Your task to perform on an android device: toggle notifications settings in the gmail app Image 0: 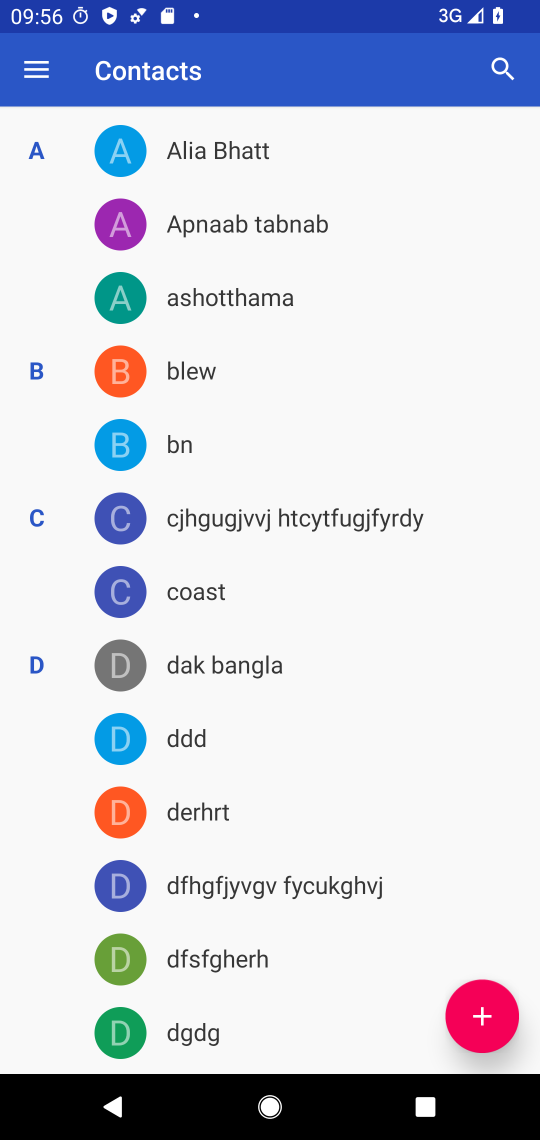
Step 0: press home button
Your task to perform on an android device: toggle notifications settings in the gmail app Image 1: 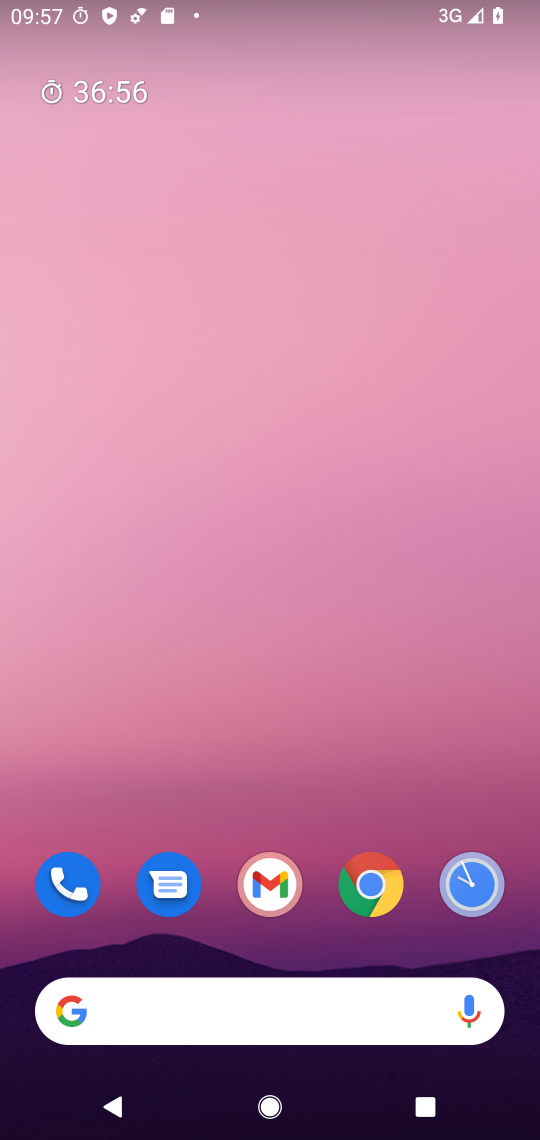
Step 1: click (278, 869)
Your task to perform on an android device: toggle notifications settings in the gmail app Image 2: 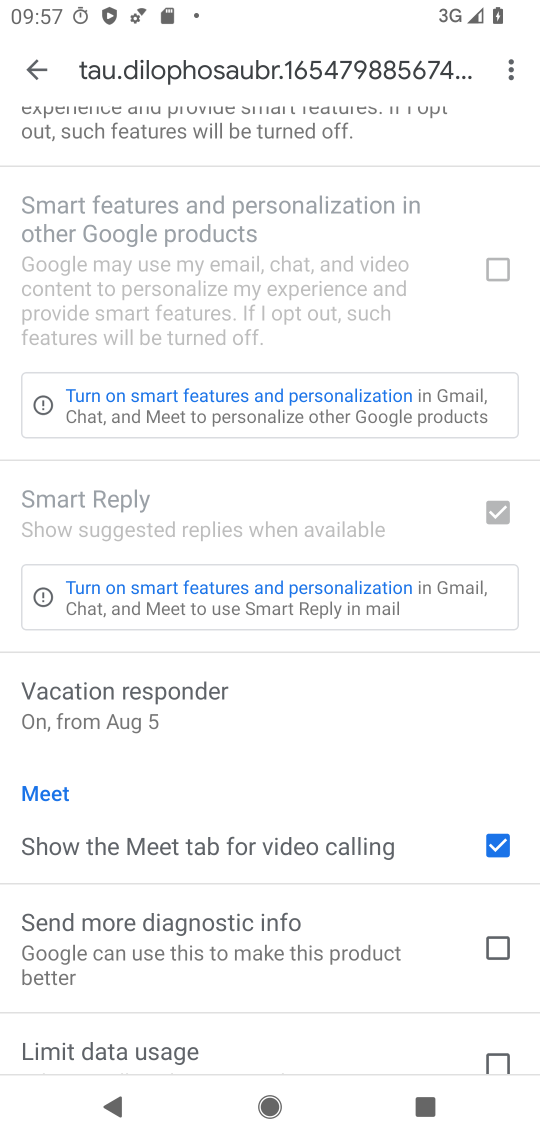
Step 2: drag from (140, 224) to (210, 625)
Your task to perform on an android device: toggle notifications settings in the gmail app Image 3: 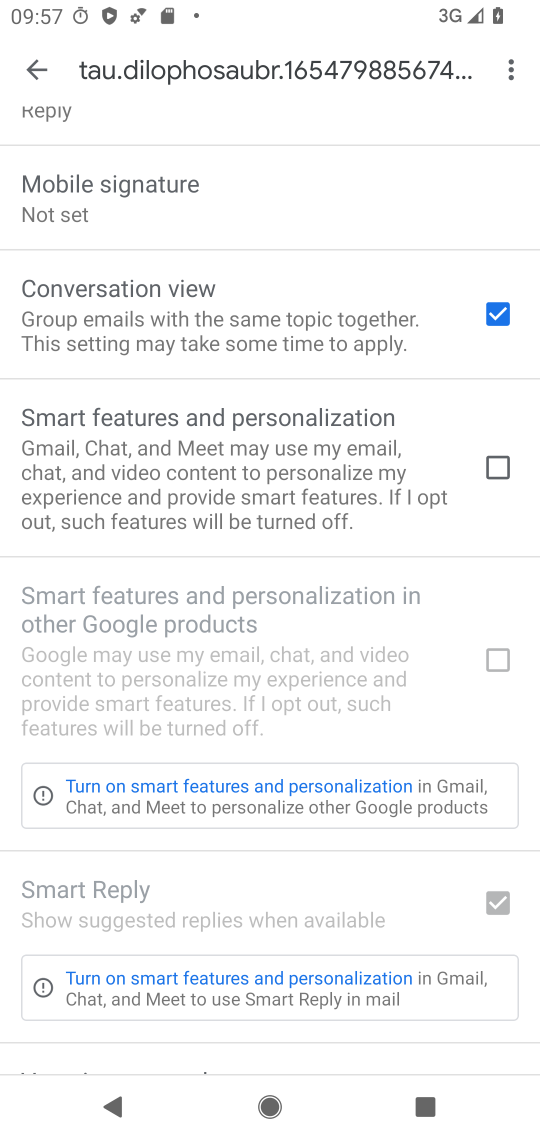
Step 3: drag from (239, 236) to (263, 806)
Your task to perform on an android device: toggle notifications settings in the gmail app Image 4: 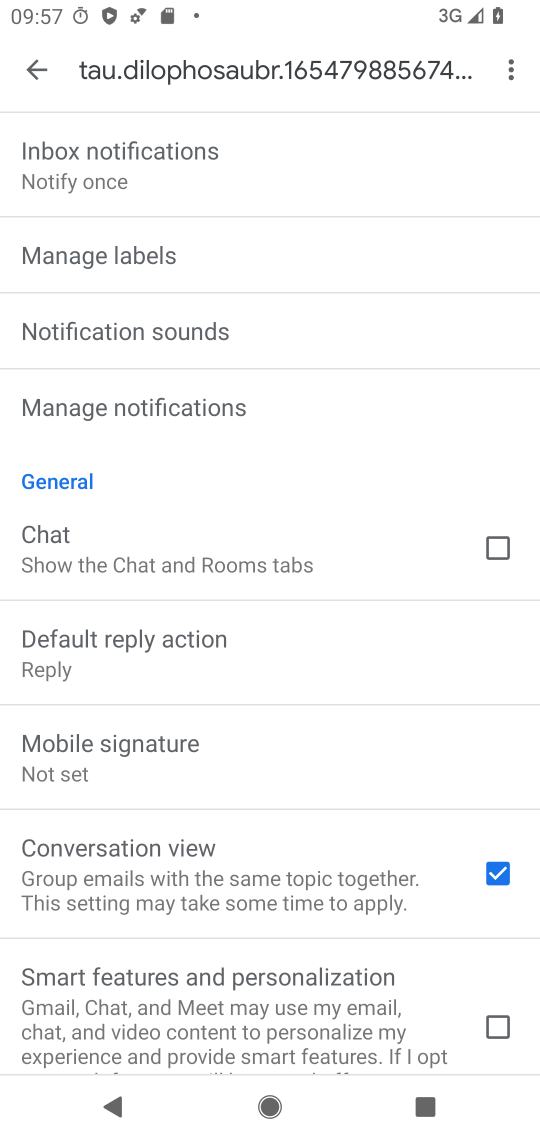
Step 4: drag from (247, 420) to (247, 879)
Your task to perform on an android device: toggle notifications settings in the gmail app Image 5: 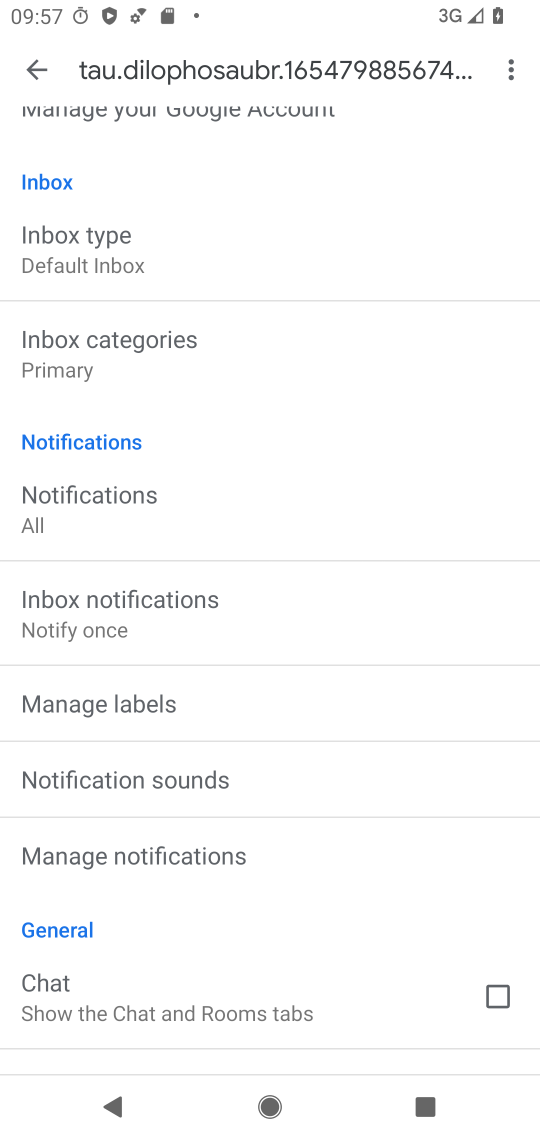
Step 5: click (247, 842)
Your task to perform on an android device: toggle notifications settings in the gmail app Image 6: 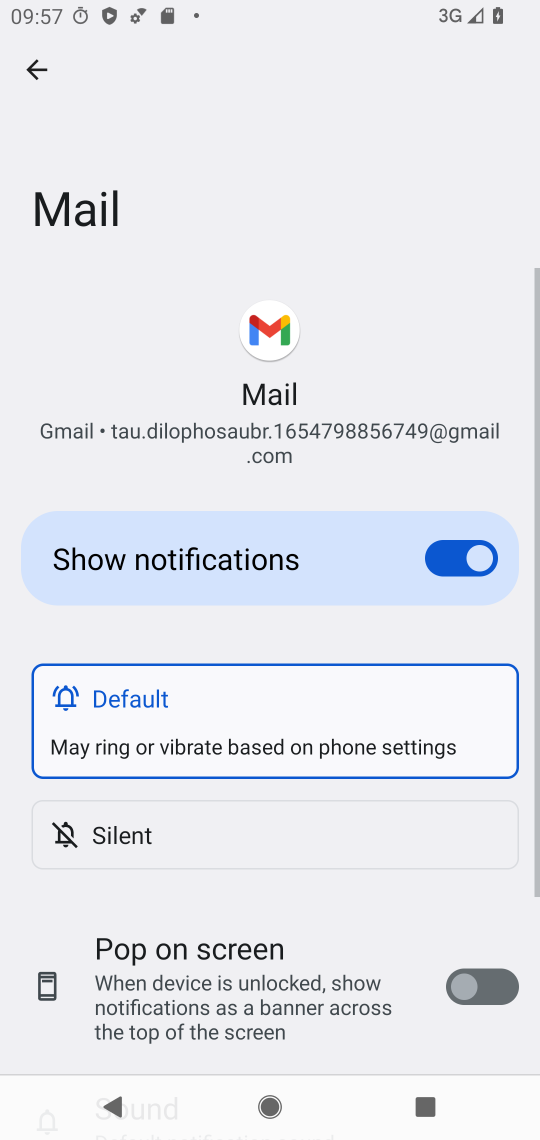
Step 6: click (450, 551)
Your task to perform on an android device: toggle notifications settings in the gmail app Image 7: 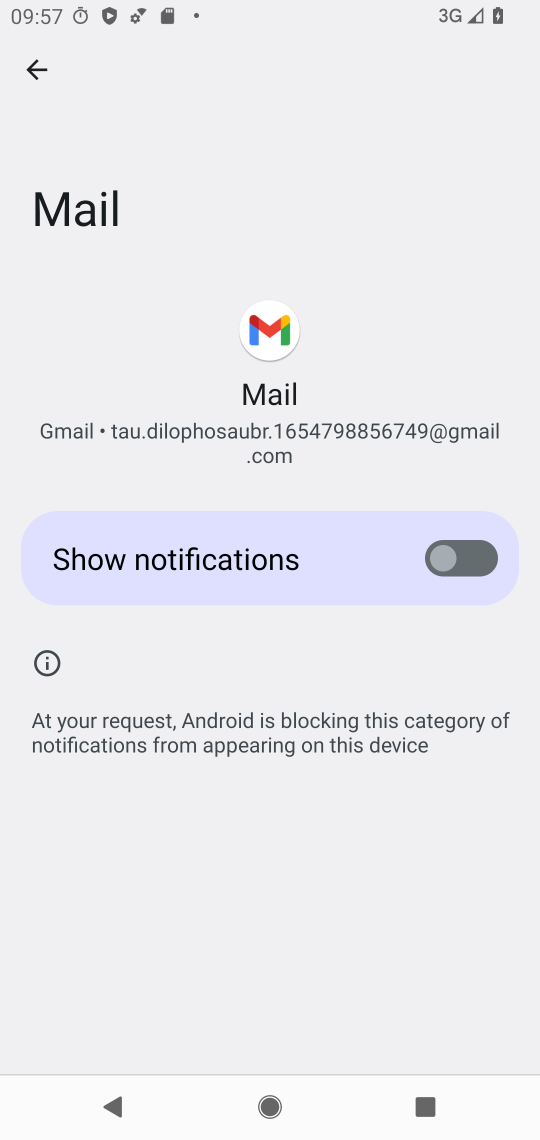
Step 7: task complete